Your task to perform on an android device: Go to internet settings Image 0: 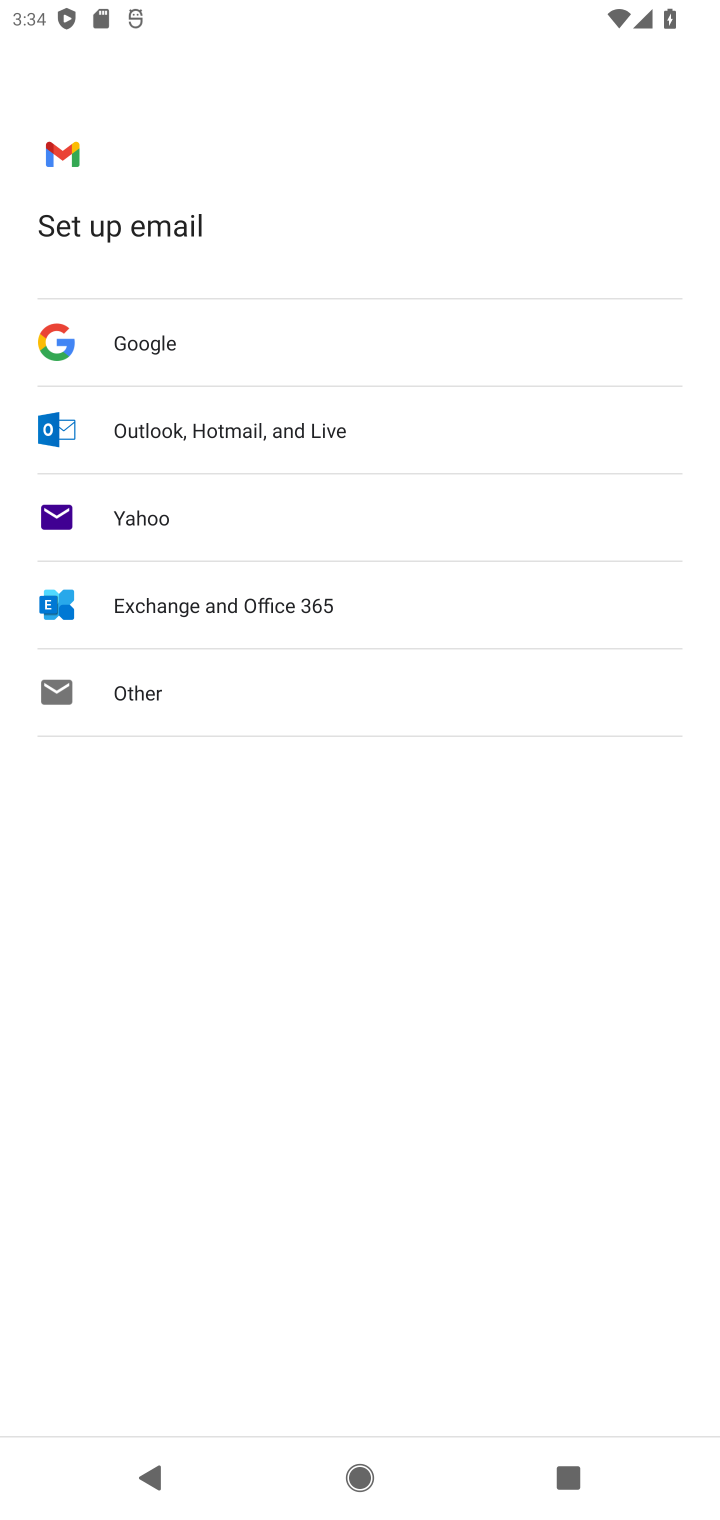
Step 0: press home button
Your task to perform on an android device: Go to internet settings Image 1: 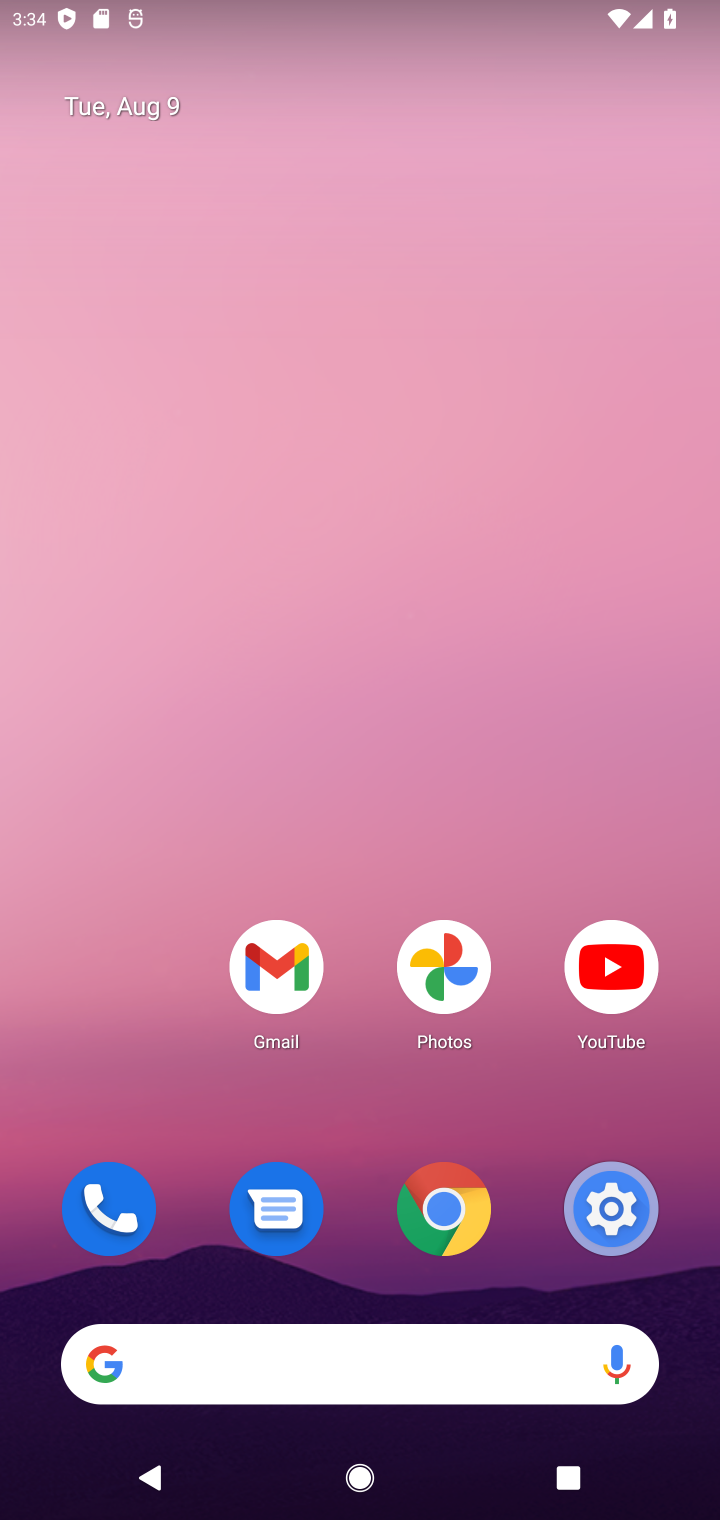
Step 1: drag from (361, 1083) to (369, 148)
Your task to perform on an android device: Go to internet settings Image 2: 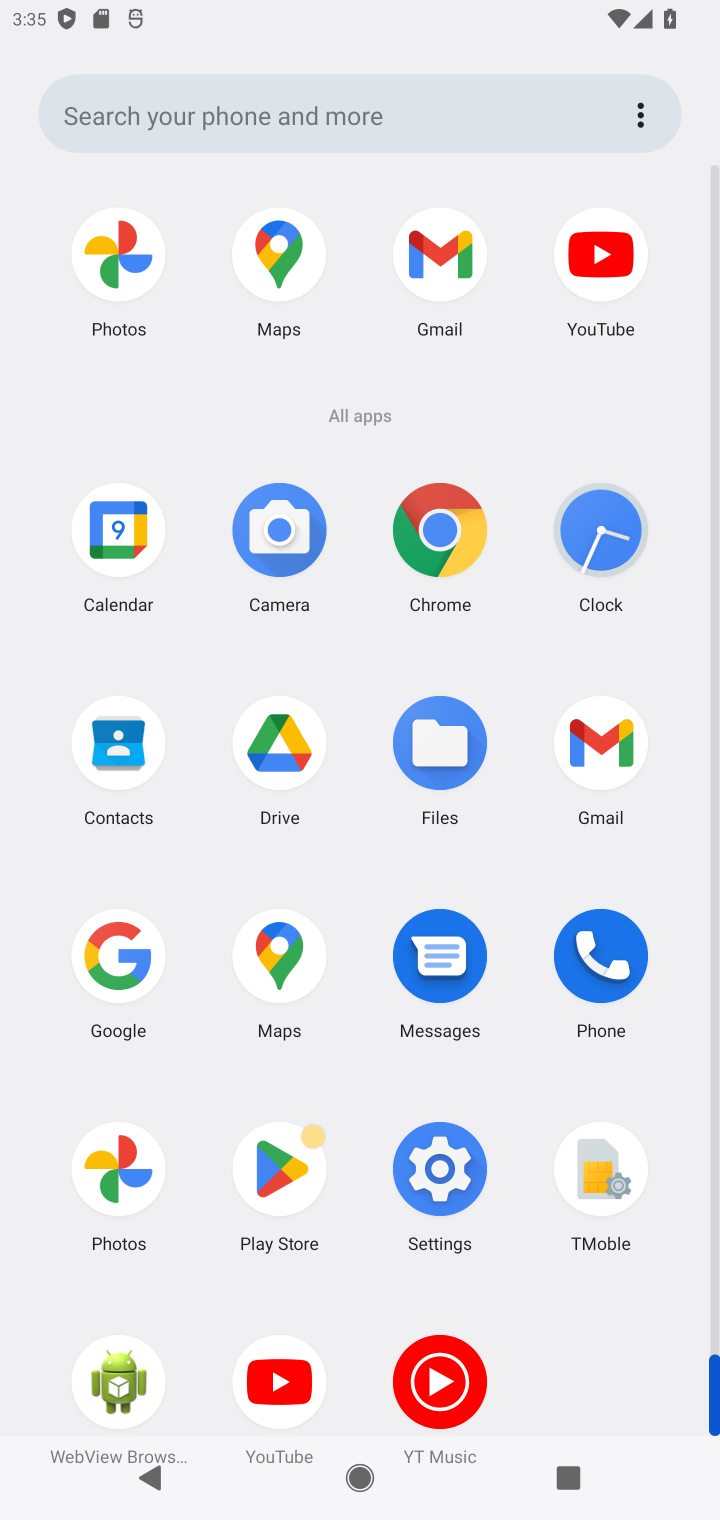
Step 2: click (439, 1148)
Your task to perform on an android device: Go to internet settings Image 3: 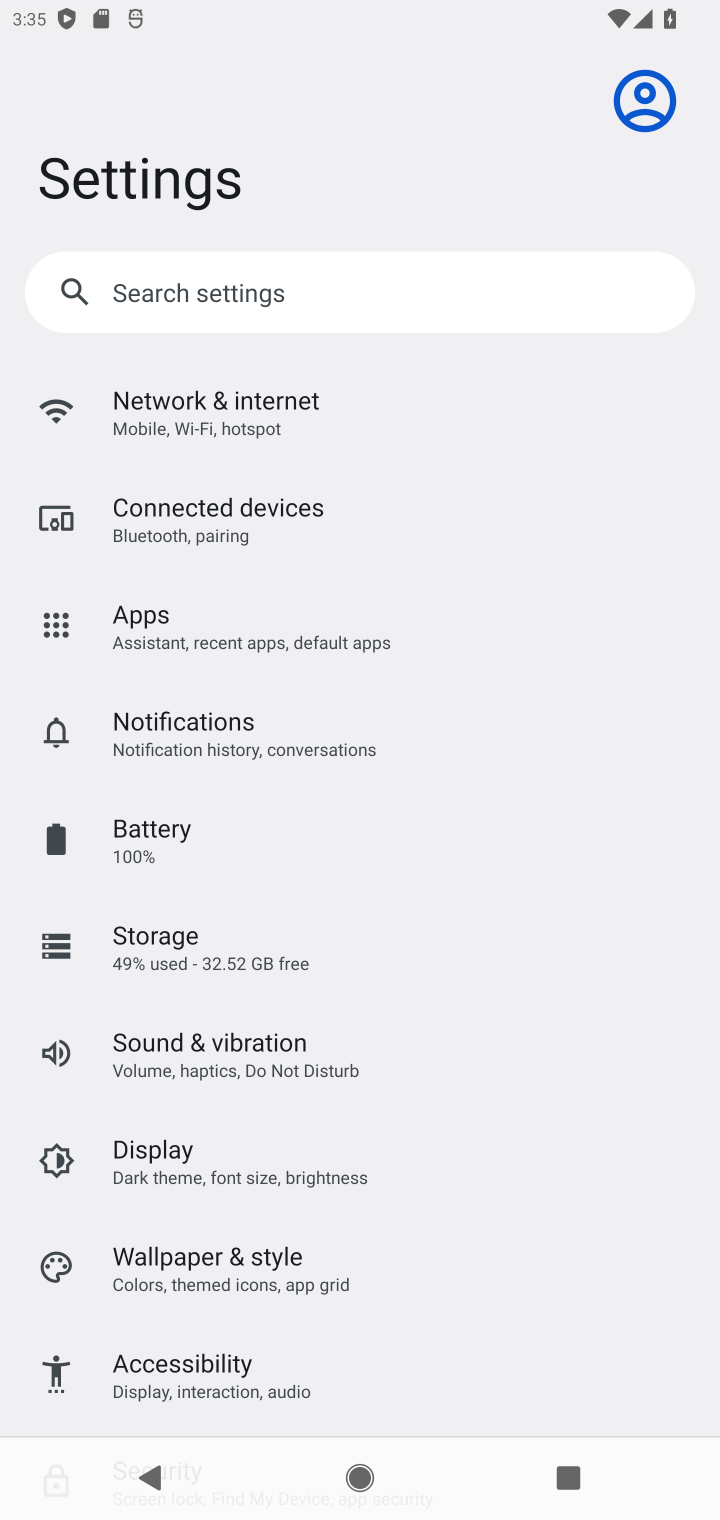
Step 3: click (256, 399)
Your task to perform on an android device: Go to internet settings Image 4: 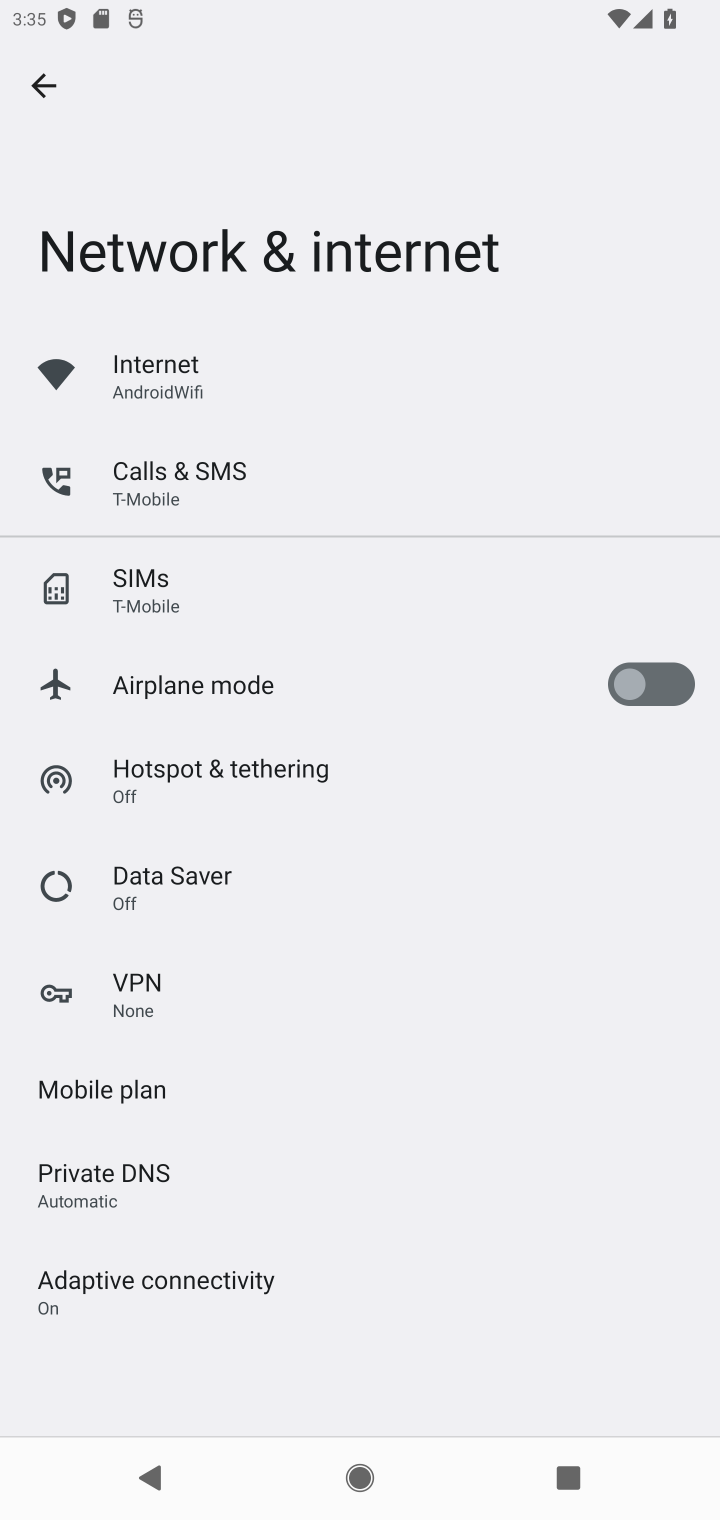
Step 4: click (154, 367)
Your task to perform on an android device: Go to internet settings Image 5: 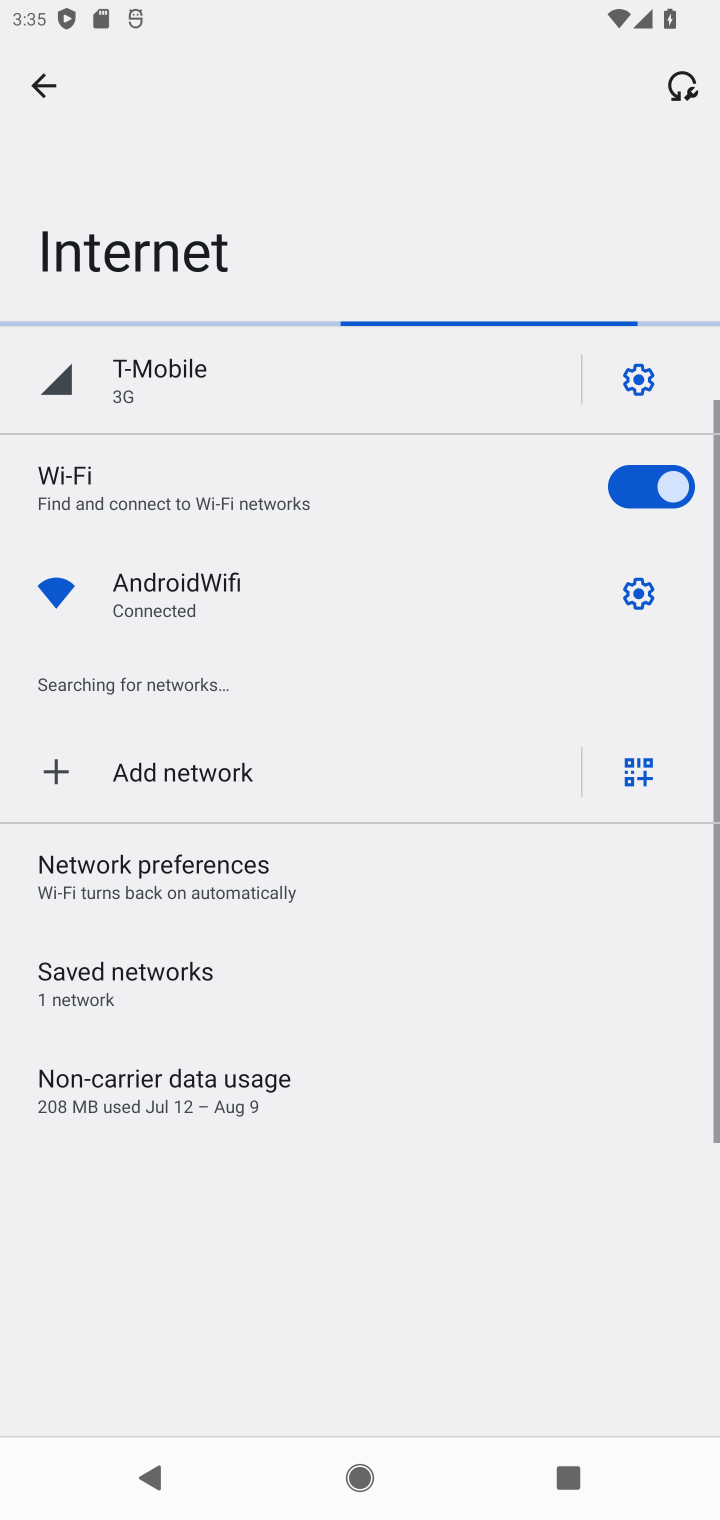
Step 5: task complete